Your task to perform on an android device: Open Youtube and go to "Your channel" Image 0: 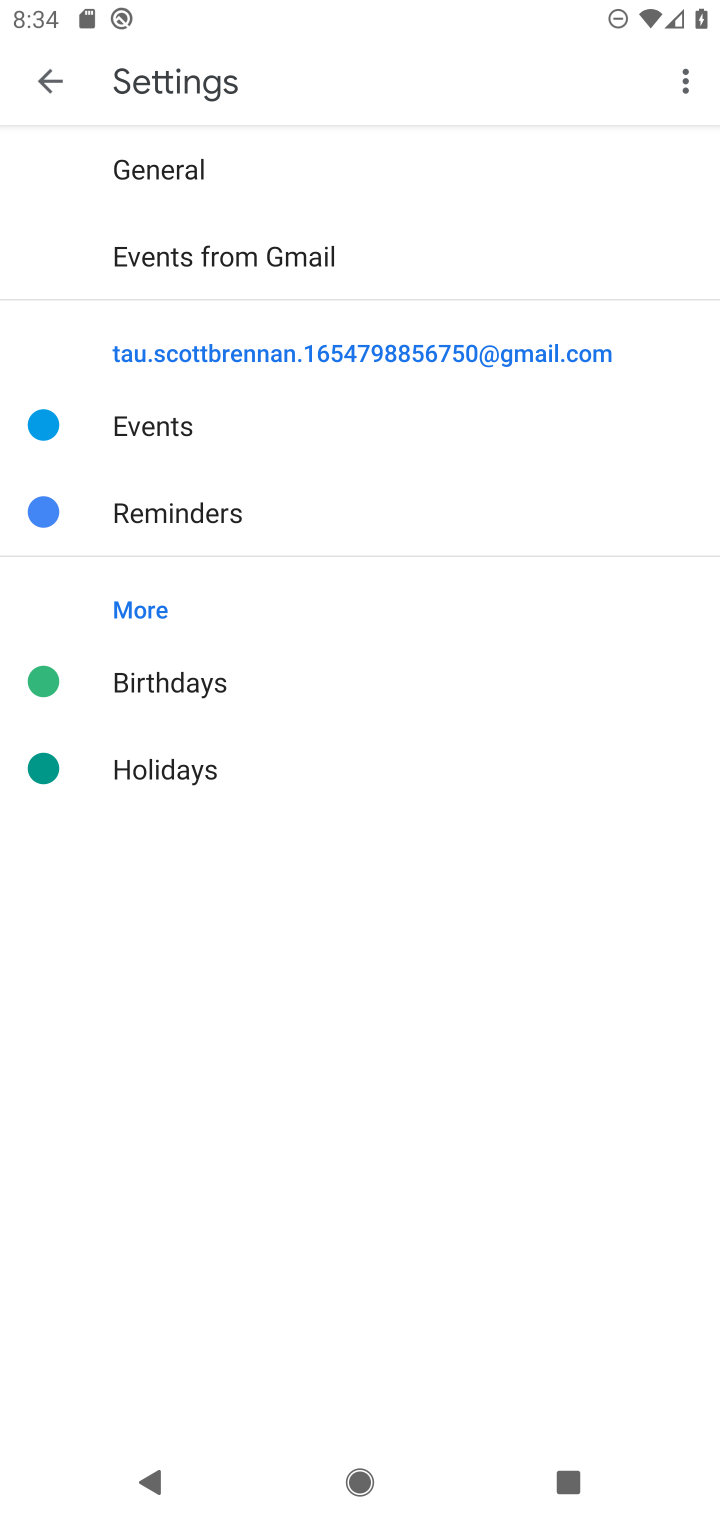
Step 0: press home button
Your task to perform on an android device: Open Youtube and go to "Your channel" Image 1: 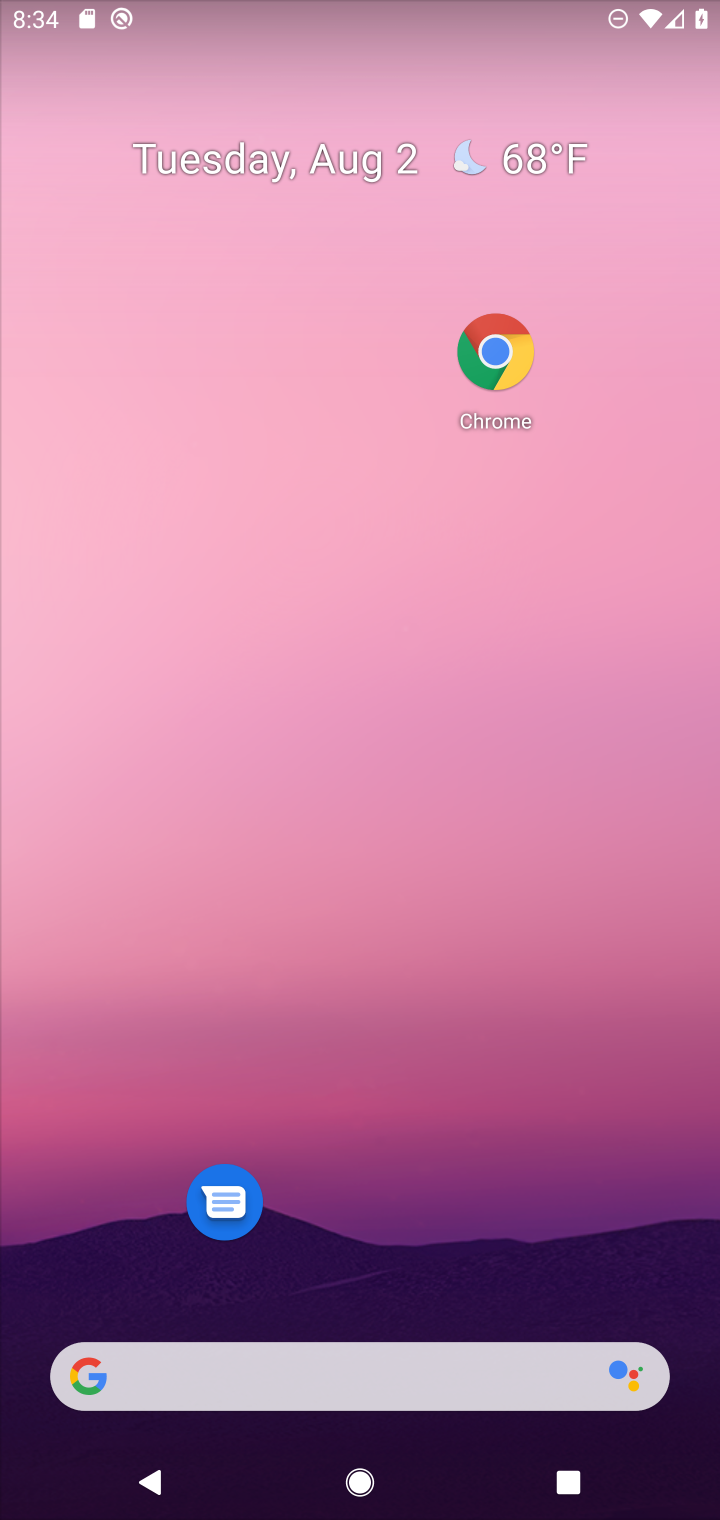
Step 1: drag from (361, 946) to (339, 78)
Your task to perform on an android device: Open Youtube and go to "Your channel" Image 2: 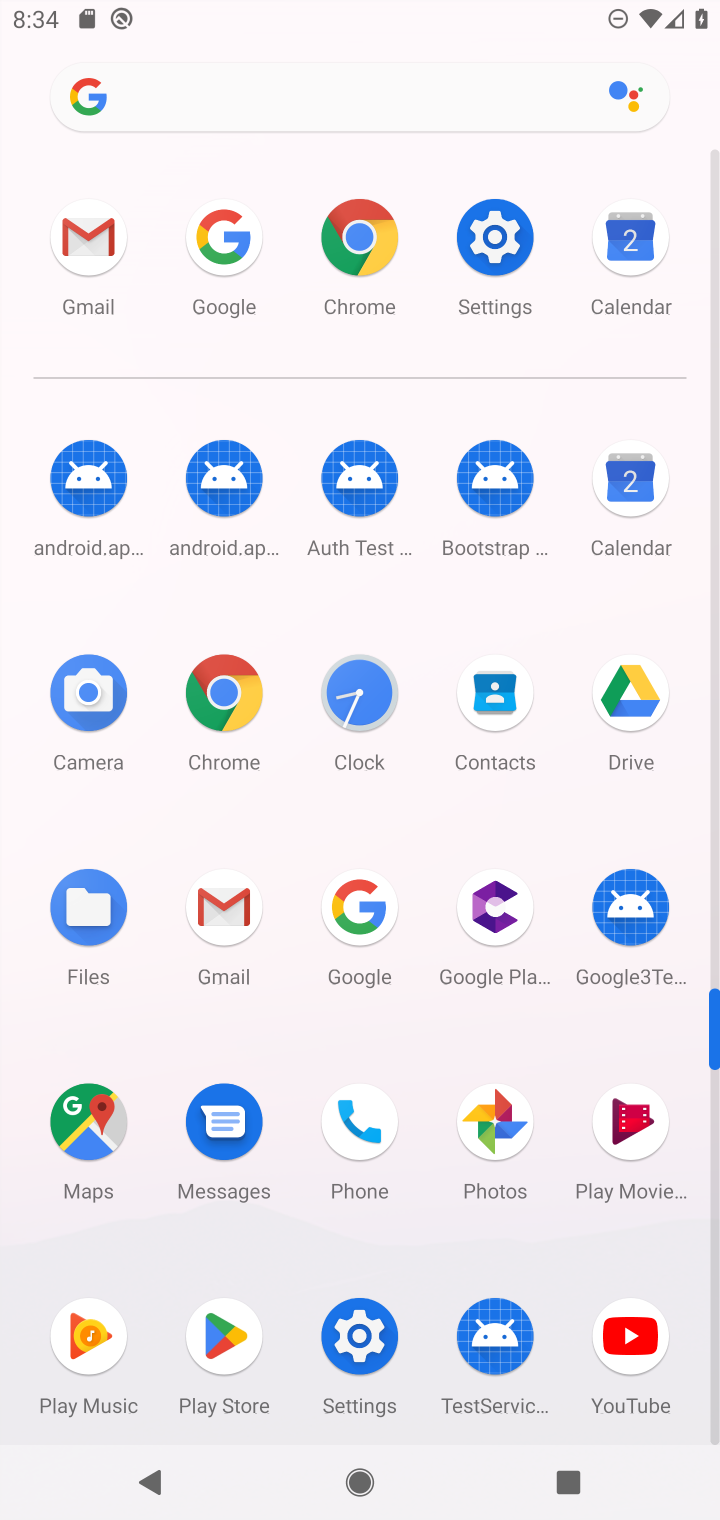
Step 2: click (630, 1332)
Your task to perform on an android device: Open Youtube and go to "Your channel" Image 3: 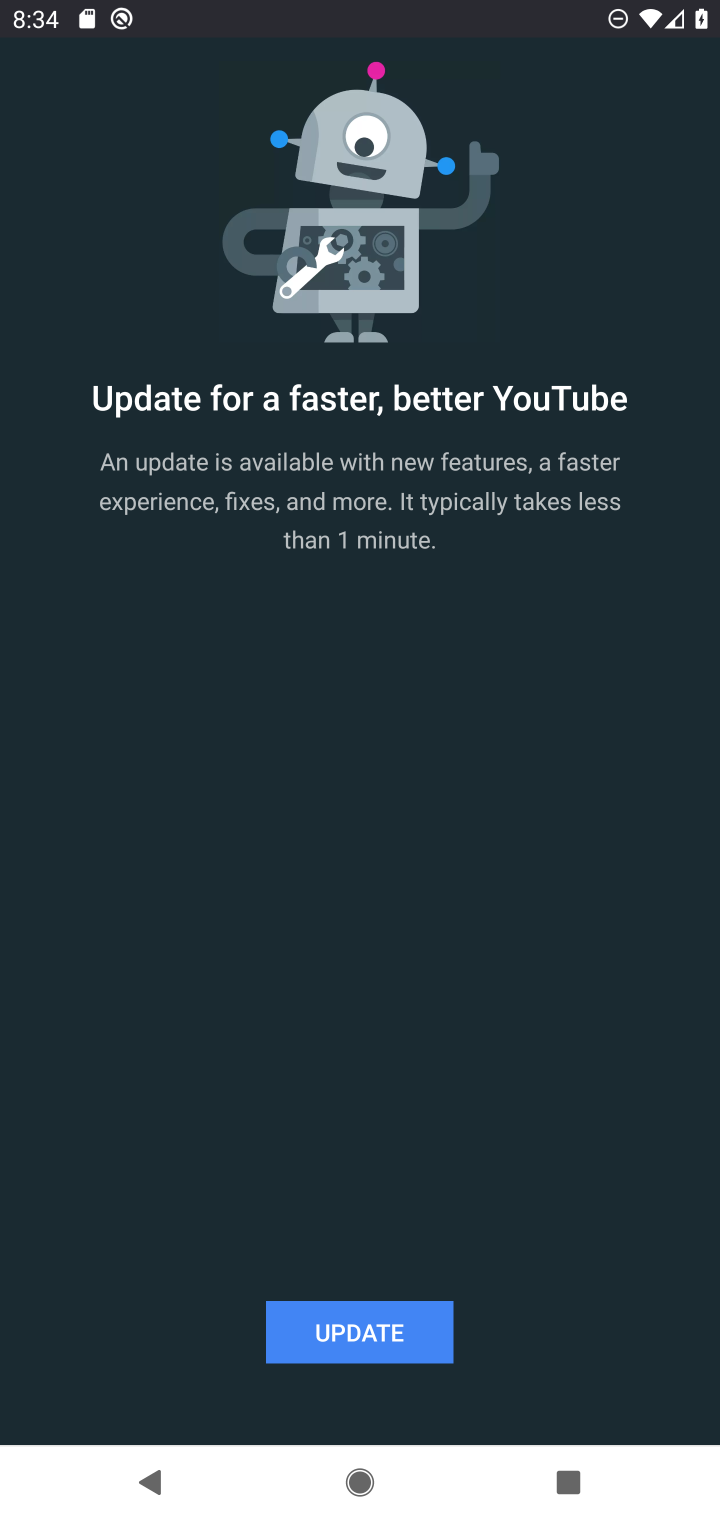
Step 3: click (317, 1350)
Your task to perform on an android device: Open Youtube and go to "Your channel" Image 4: 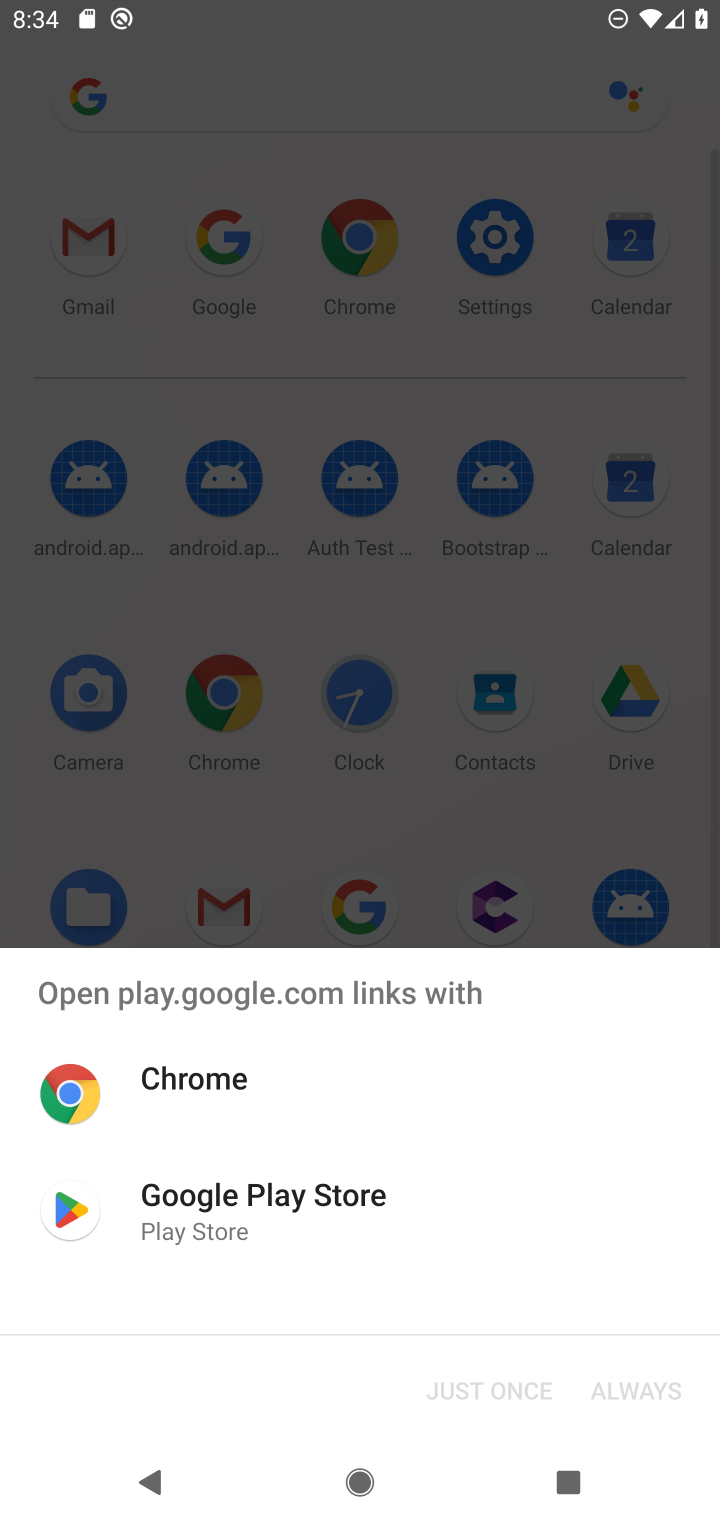
Step 4: click (187, 1201)
Your task to perform on an android device: Open Youtube and go to "Your channel" Image 5: 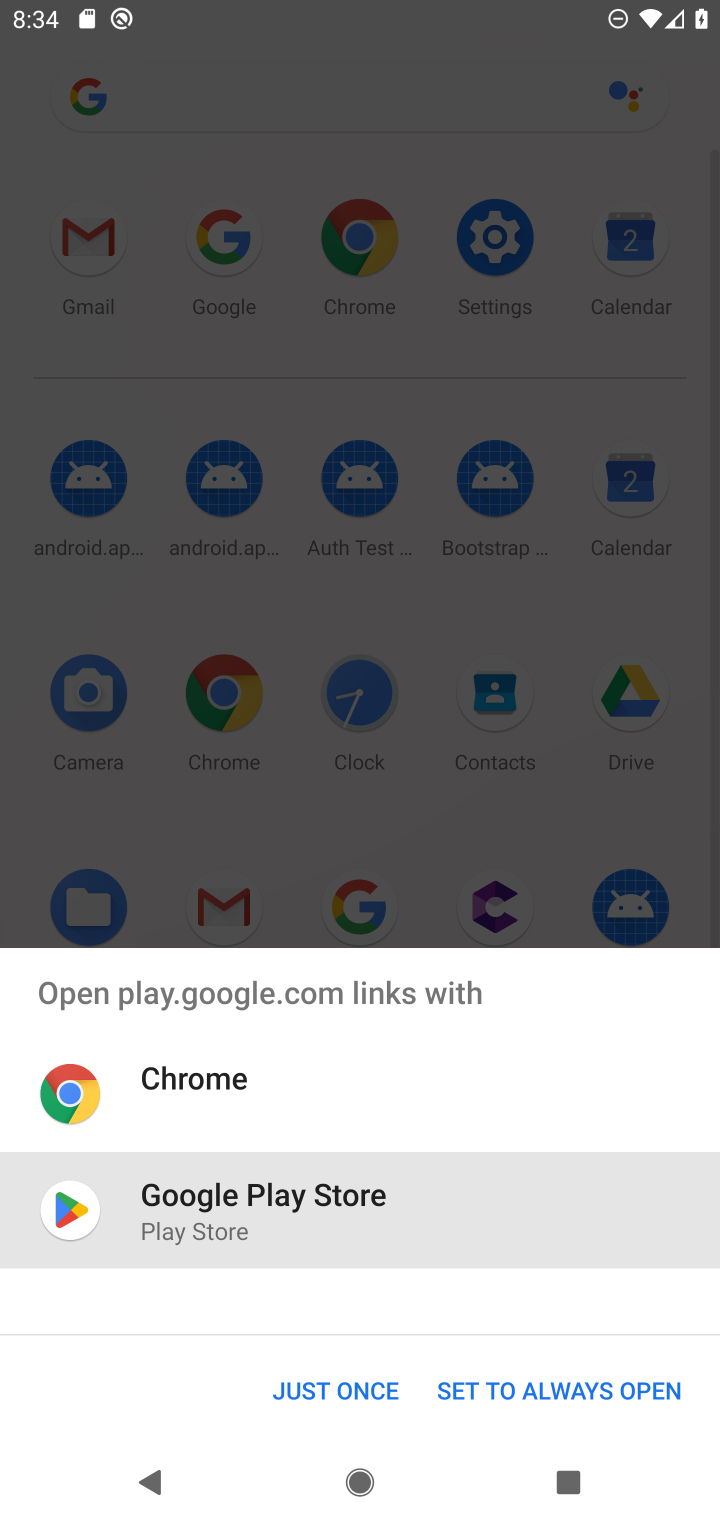
Step 5: click (344, 1393)
Your task to perform on an android device: Open Youtube and go to "Your channel" Image 6: 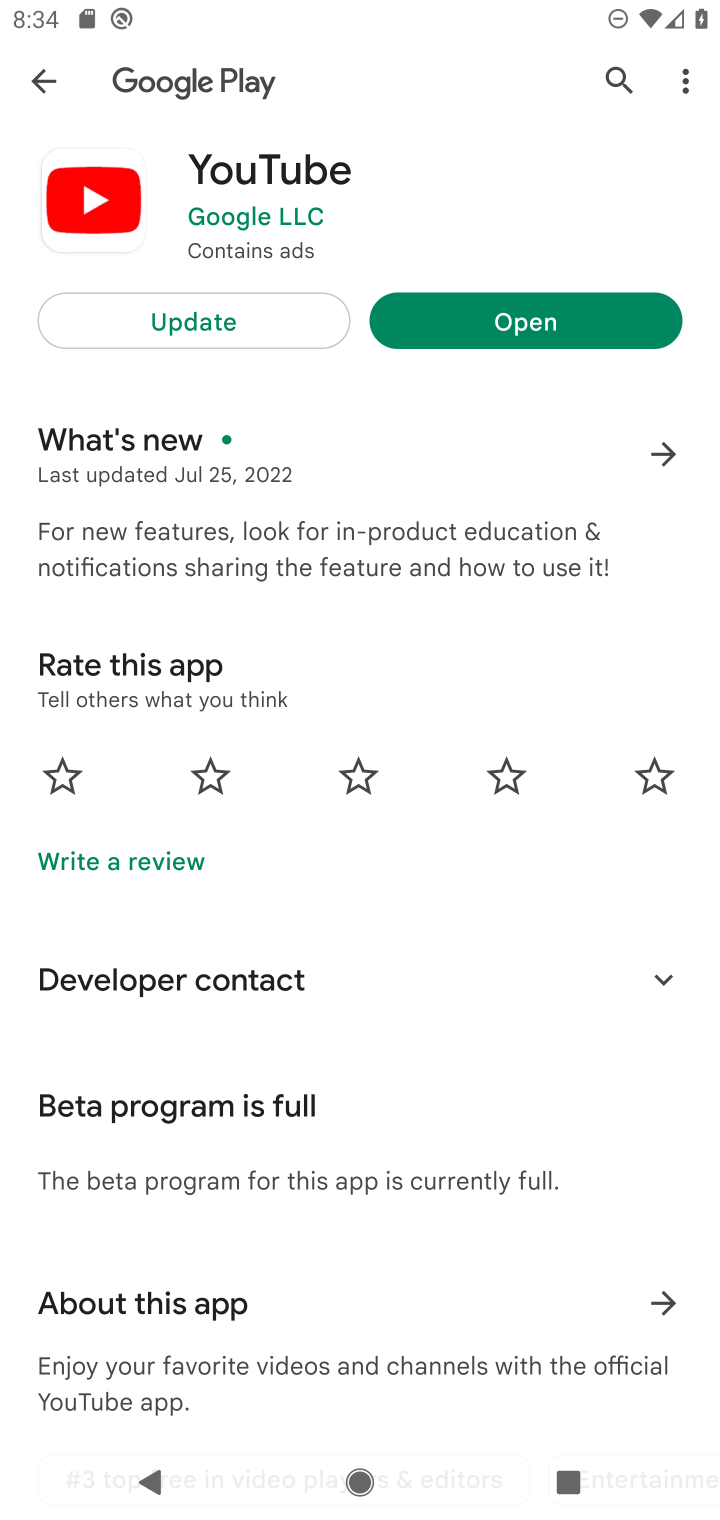
Step 6: click (216, 319)
Your task to perform on an android device: Open Youtube and go to "Your channel" Image 7: 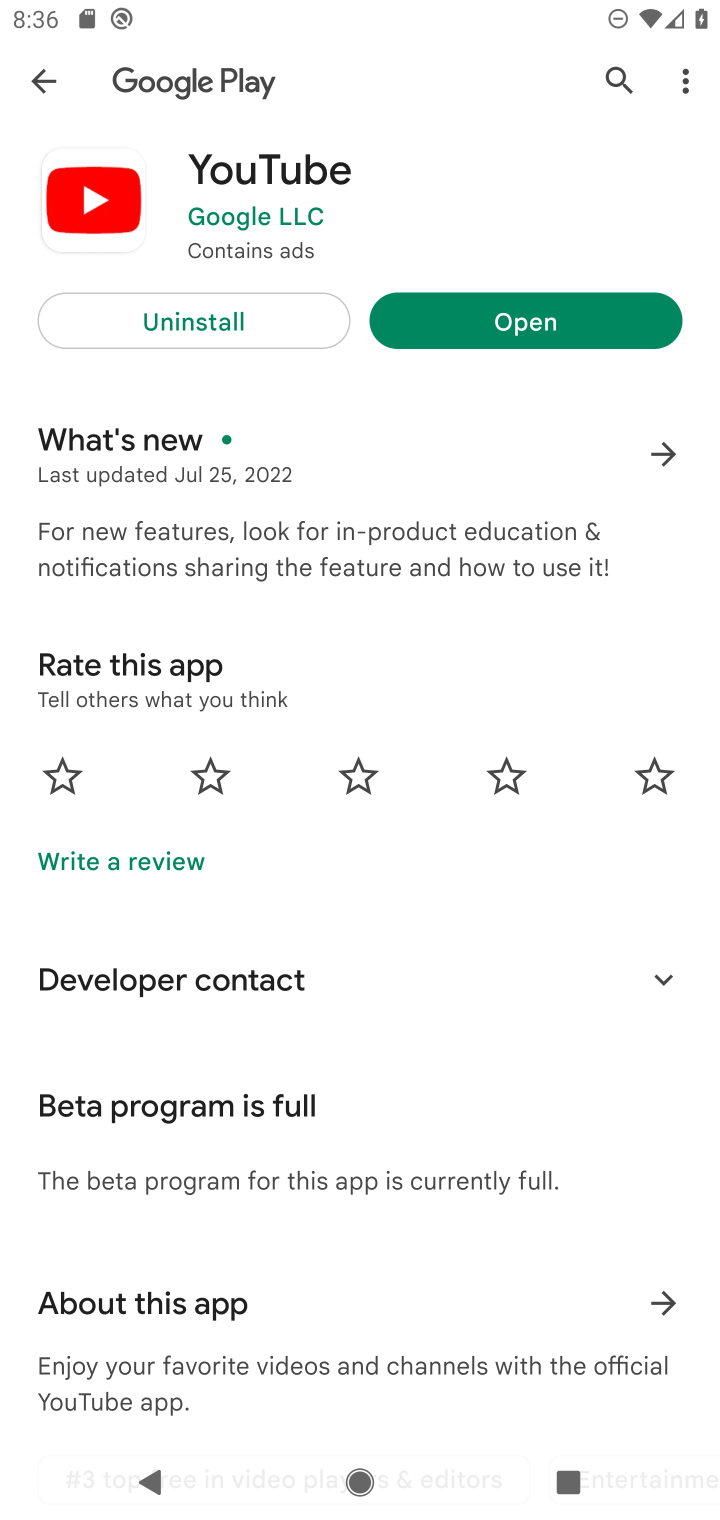
Step 7: click (517, 340)
Your task to perform on an android device: Open Youtube and go to "Your channel" Image 8: 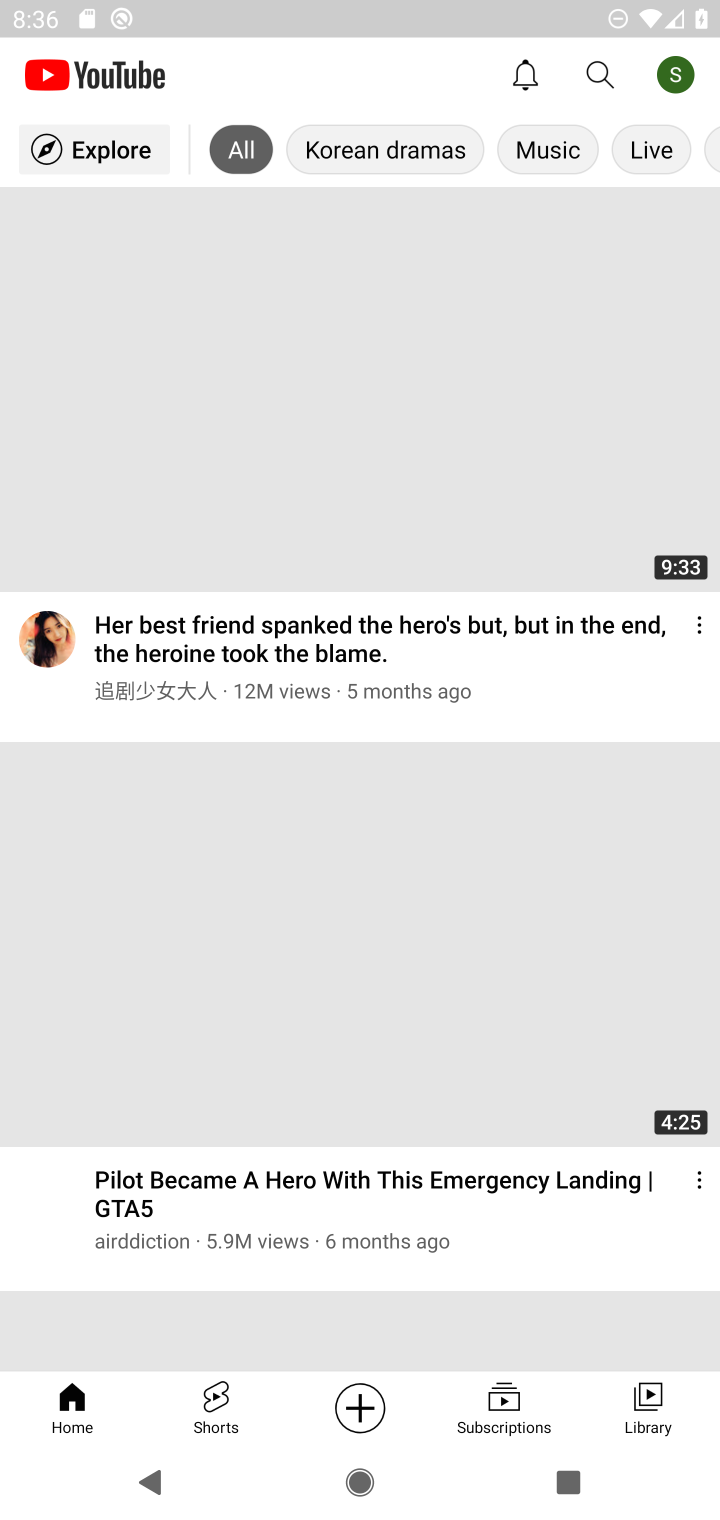
Step 8: click (683, 72)
Your task to perform on an android device: Open Youtube and go to "Your channel" Image 9: 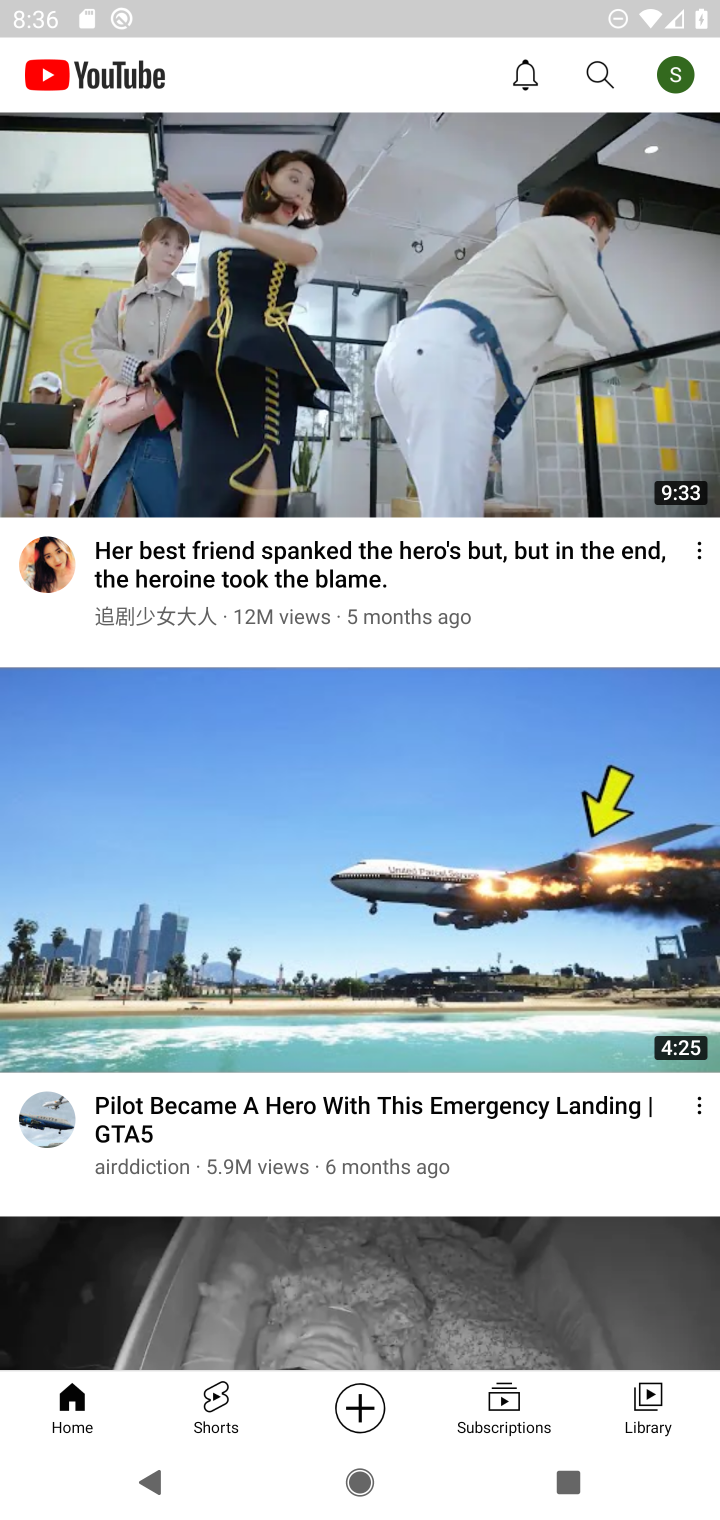
Step 9: click (683, 74)
Your task to perform on an android device: Open Youtube and go to "Your channel" Image 10: 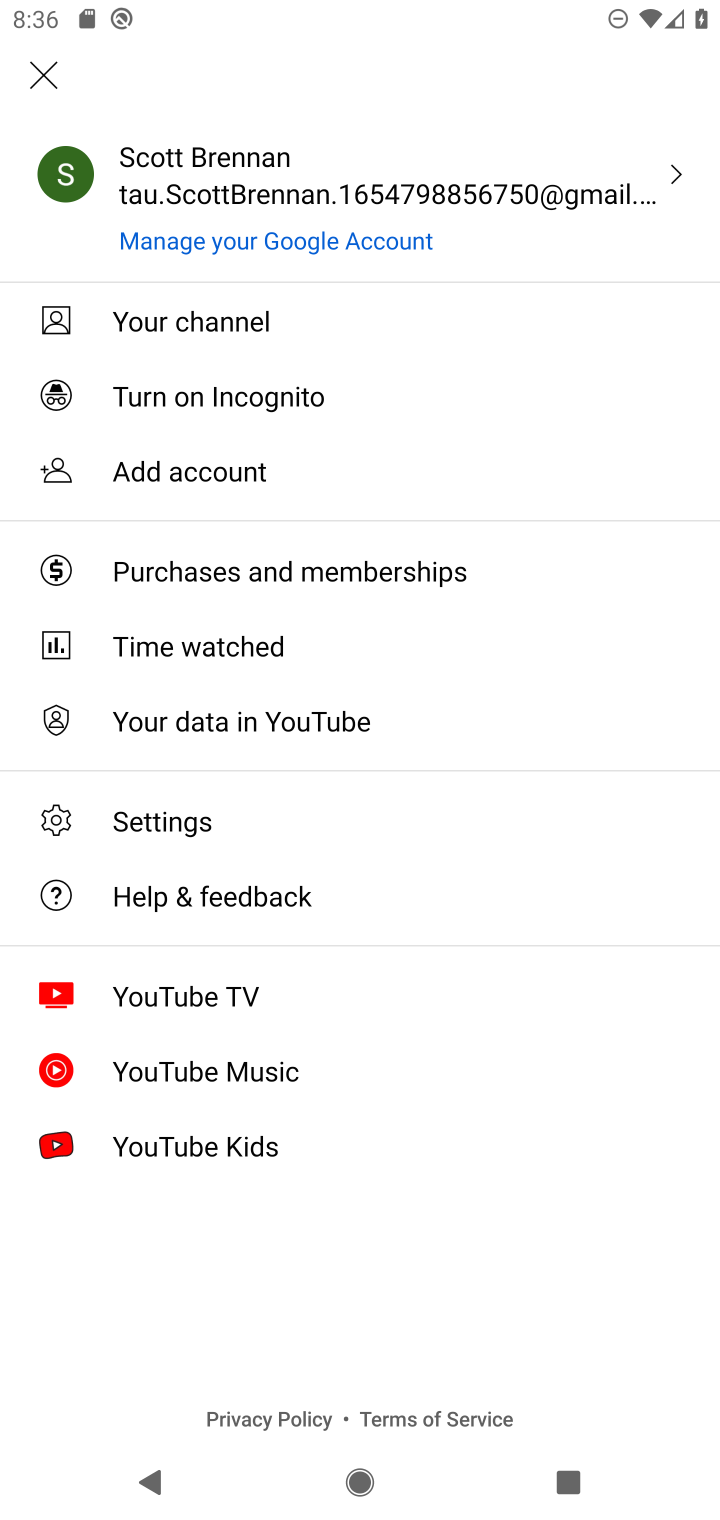
Step 10: click (161, 330)
Your task to perform on an android device: Open Youtube and go to "Your channel" Image 11: 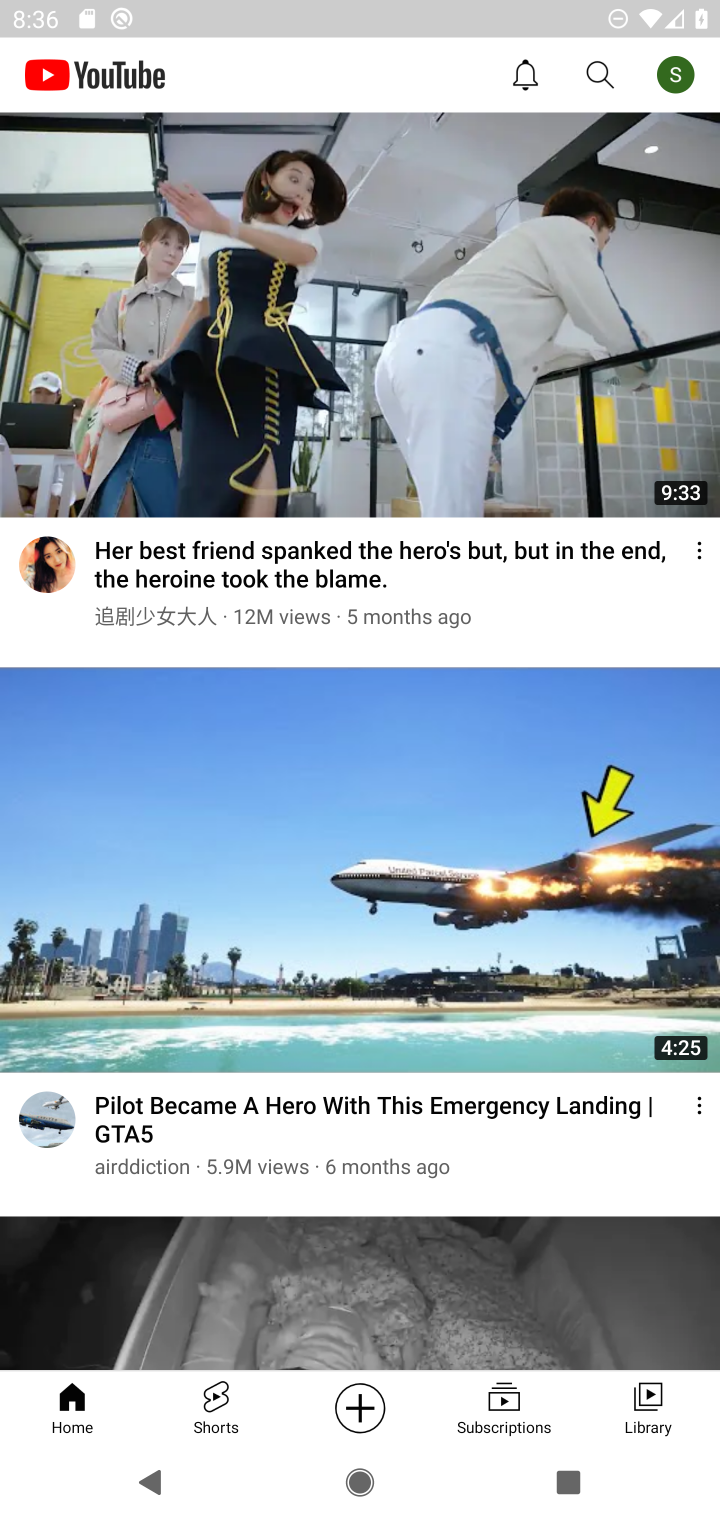
Step 11: task complete